Your task to perform on an android device: Turn on the flashlight Image 0: 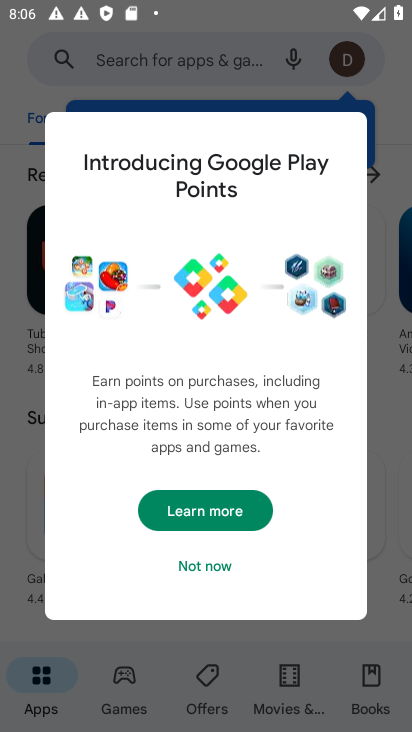
Step 0: press home button
Your task to perform on an android device: Turn on the flashlight Image 1: 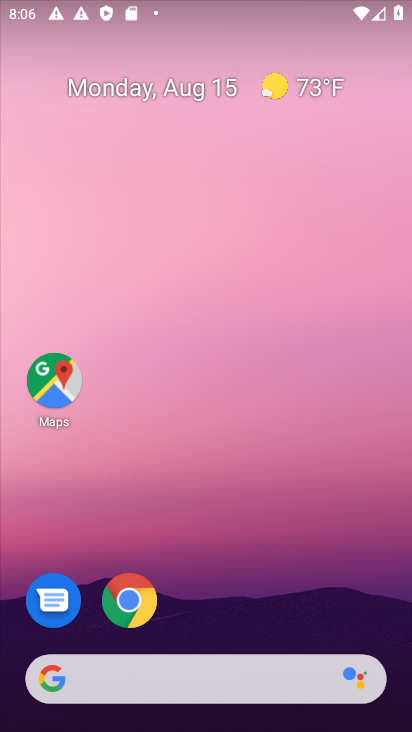
Step 1: drag from (227, 638) to (249, 313)
Your task to perform on an android device: Turn on the flashlight Image 2: 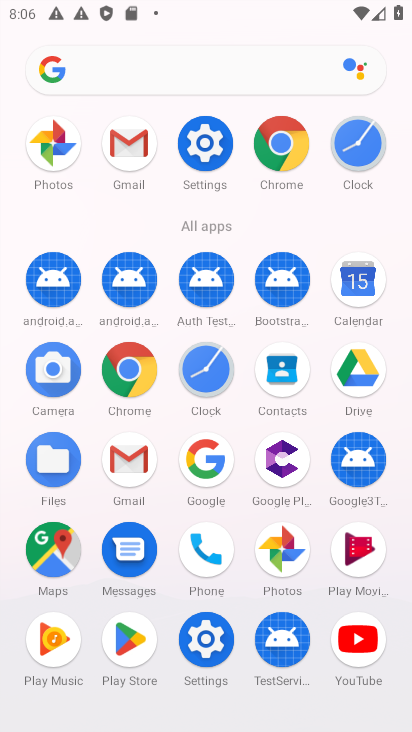
Step 2: click (197, 139)
Your task to perform on an android device: Turn on the flashlight Image 3: 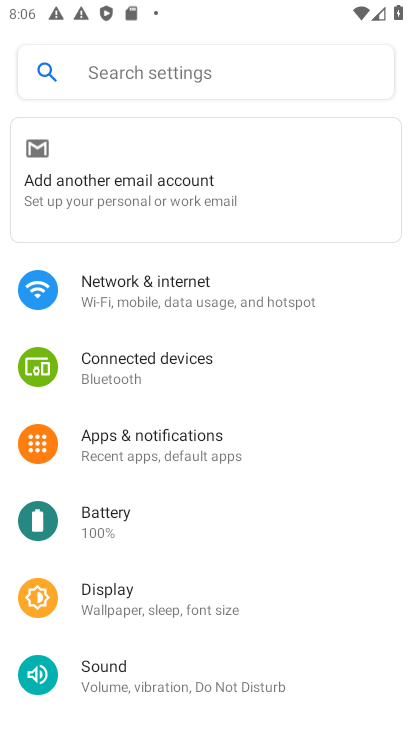
Step 3: task complete